Your task to perform on an android device: Turn off the flashlight Image 0: 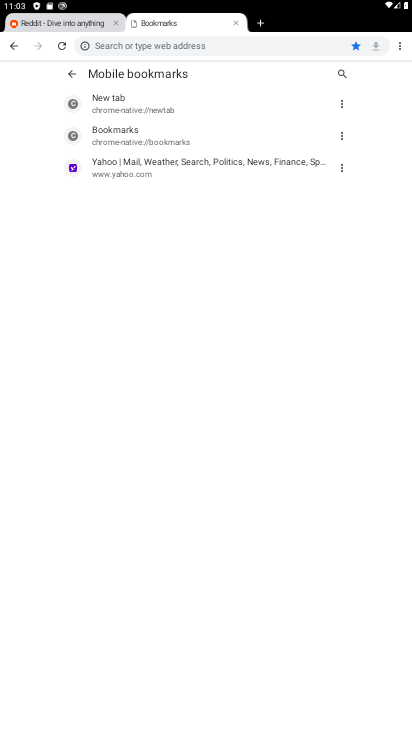
Step 0: press home button
Your task to perform on an android device: Turn off the flashlight Image 1: 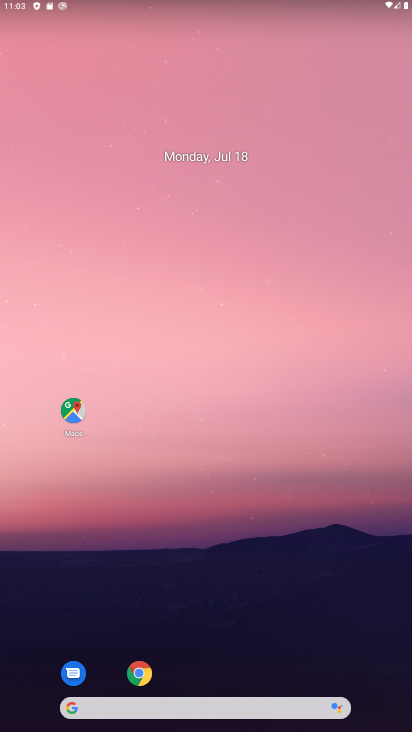
Step 1: drag from (205, 674) to (246, 72)
Your task to perform on an android device: Turn off the flashlight Image 2: 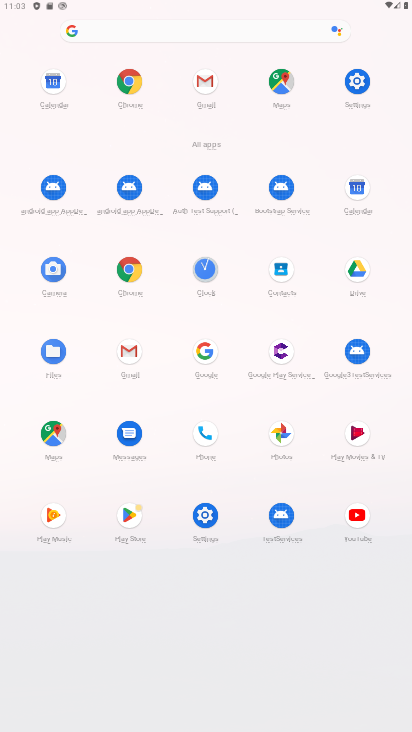
Step 2: click (356, 75)
Your task to perform on an android device: Turn off the flashlight Image 3: 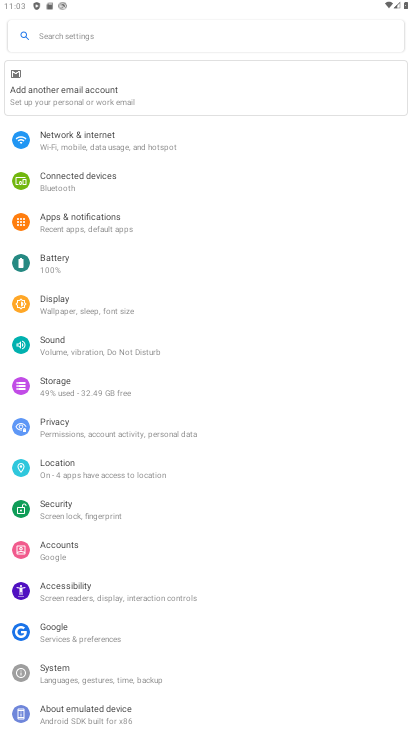
Step 3: click (66, 28)
Your task to perform on an android device: Turn off the flashlight Image 4: 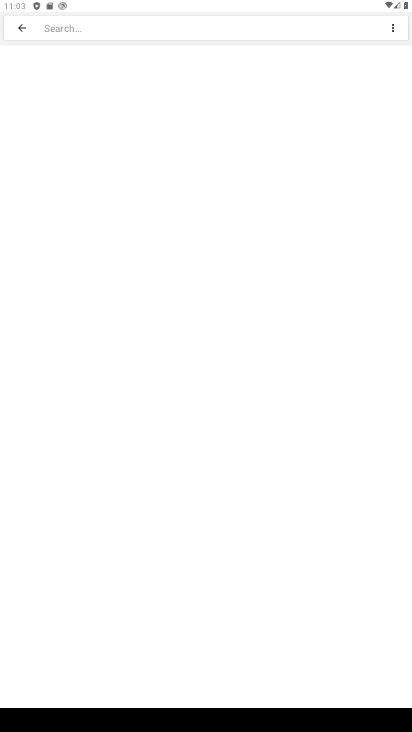
Step 4: type "flashlight"
Your task to perform on an android device: Turn off the flashlight Image 5: 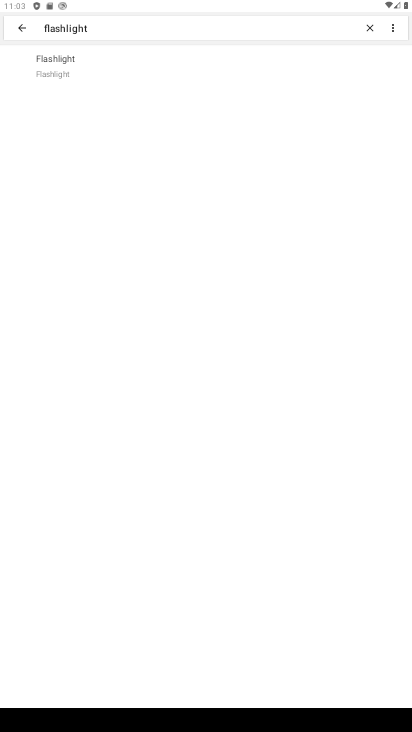
Step 5: click (61, 69)
Your task to perform on an android device: Turn off the flashlight Image 6: 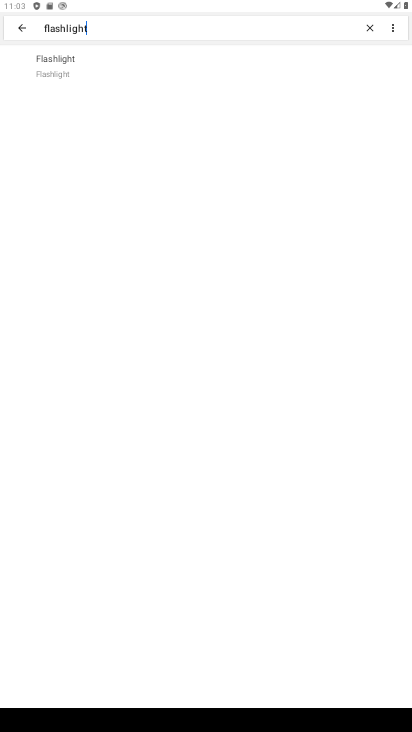
Step 6: click (87, 65)
Your task to perform on an android device: Turn off the flashlight Image 7: 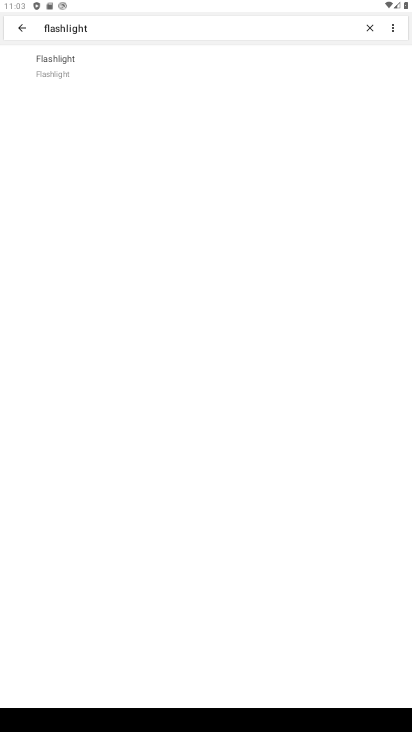
Step 7: task complete